Your task to perform on an android device: toggle show notifications on the lock screen Image 0: 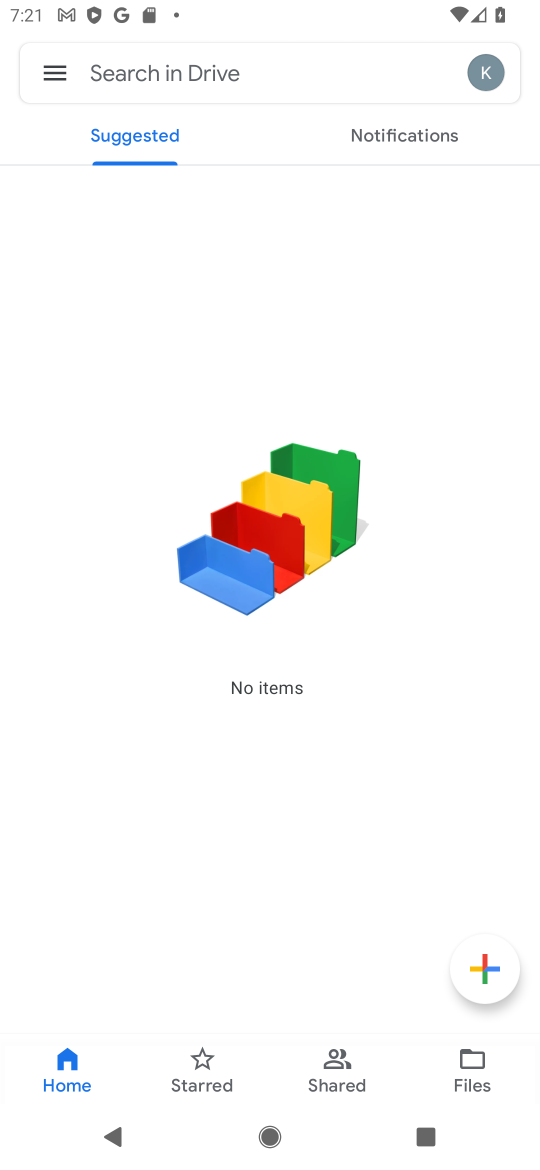
Step 0: press home button
Your task to perform on an android device: toggle show notifications on the lock screen Image 1: 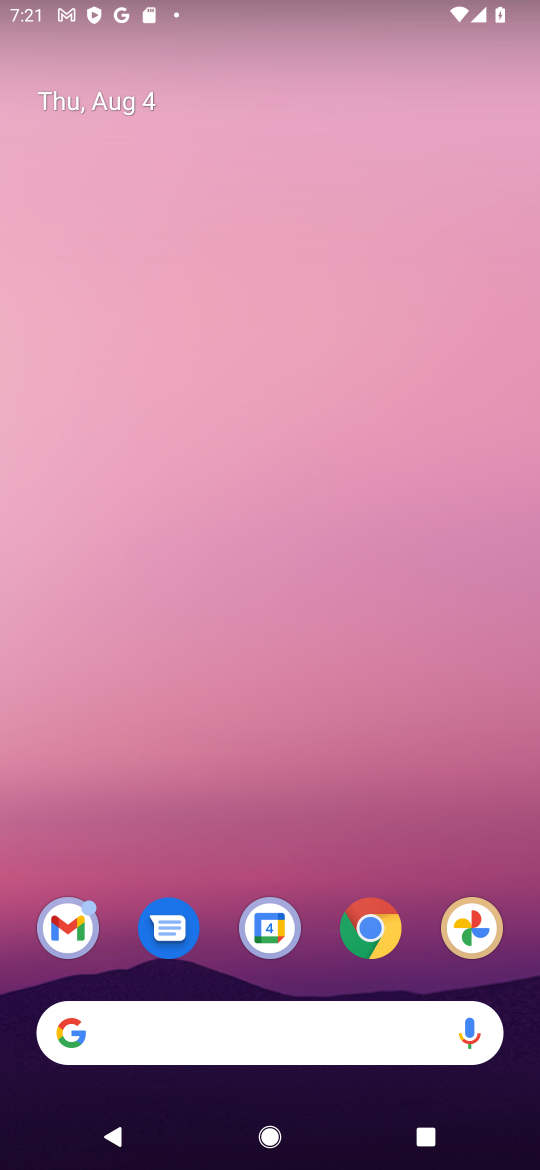
Step 1: drag from (239, 968) to (327, 3)
Your task to perform on an android device: toggle show notifications on the lock screen Image 2: 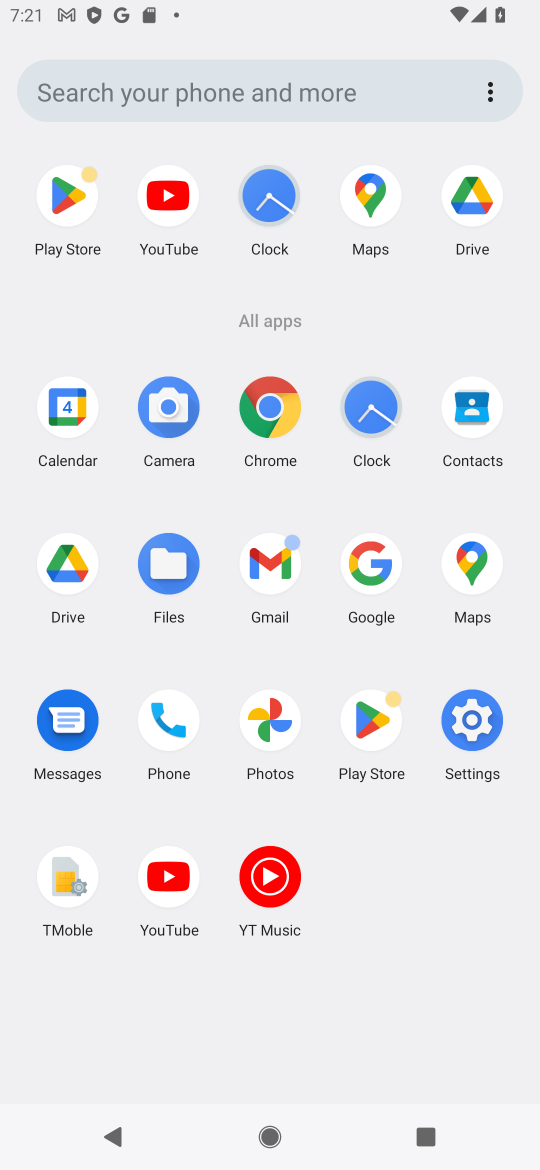
Step 2: click (465, 753)
Your task to perform on an android device: toggle show notifications on the lock screen Image 3: 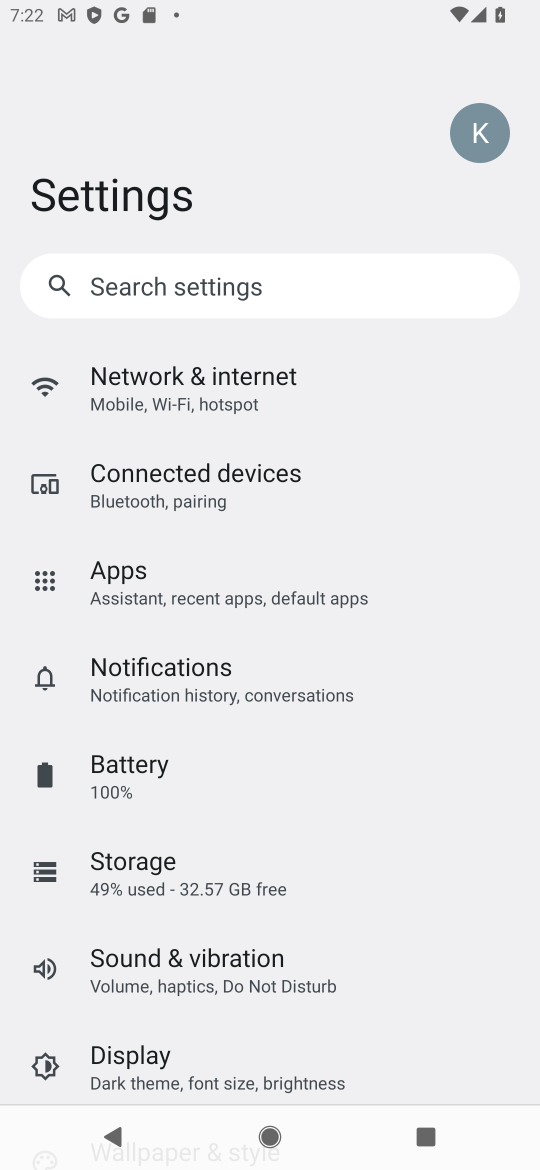
Step 3: click (152, 690)
Your task to perform on an android device: toggle show notifications on the lock screen Image 4: 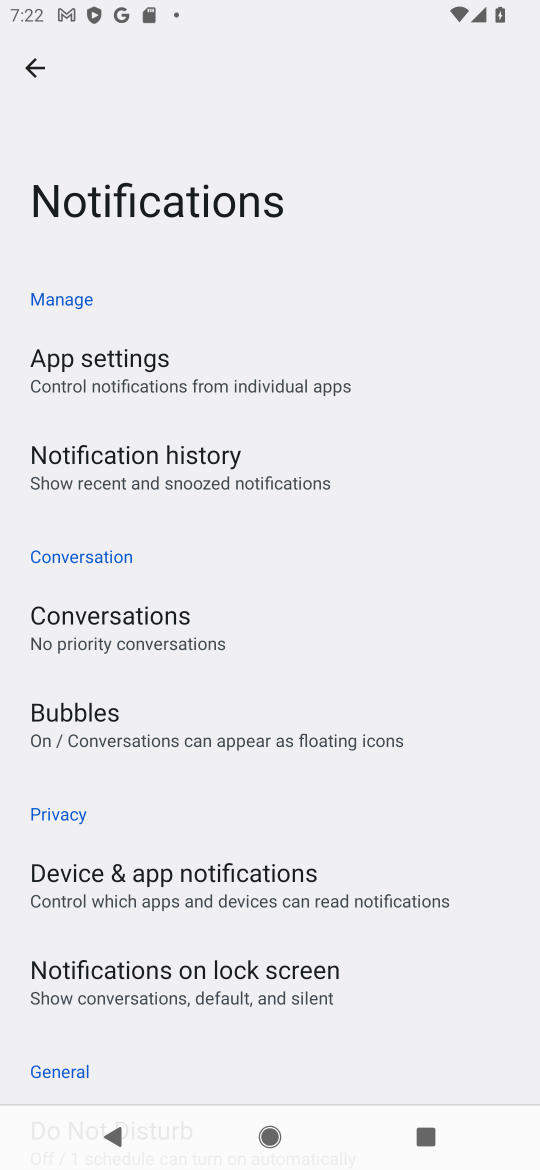
Step 4: drag from (224, 906) to (284, 568)
Your task to perform on an android device: toggle show notifications on the lock screen Image 5: 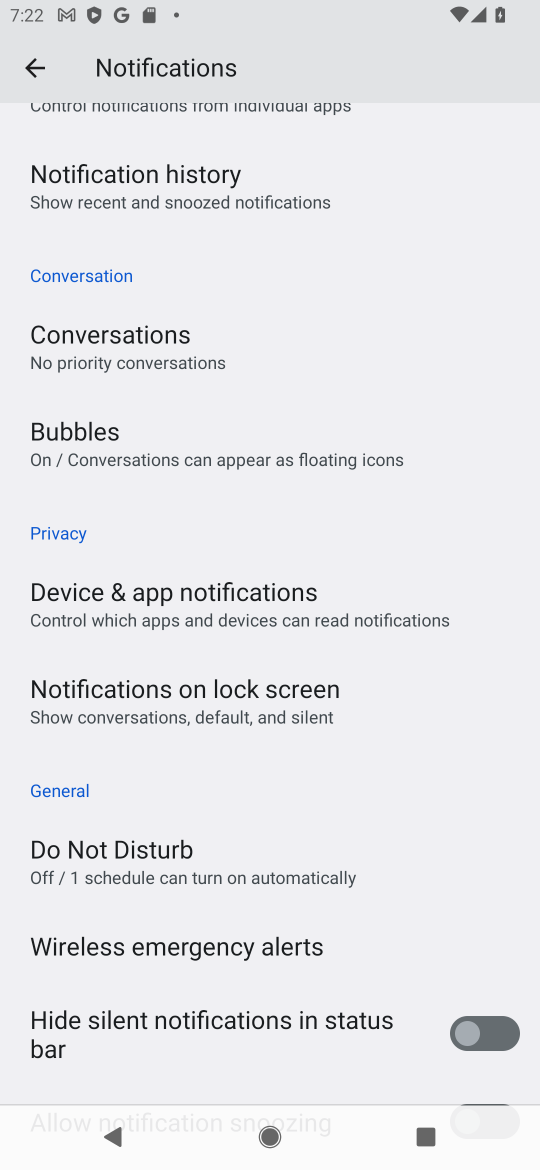
Step 5: drag from (237, 918) to (276, 603)
Your task to perform on an android device: toggle show notifications on the lock screen Image 6: 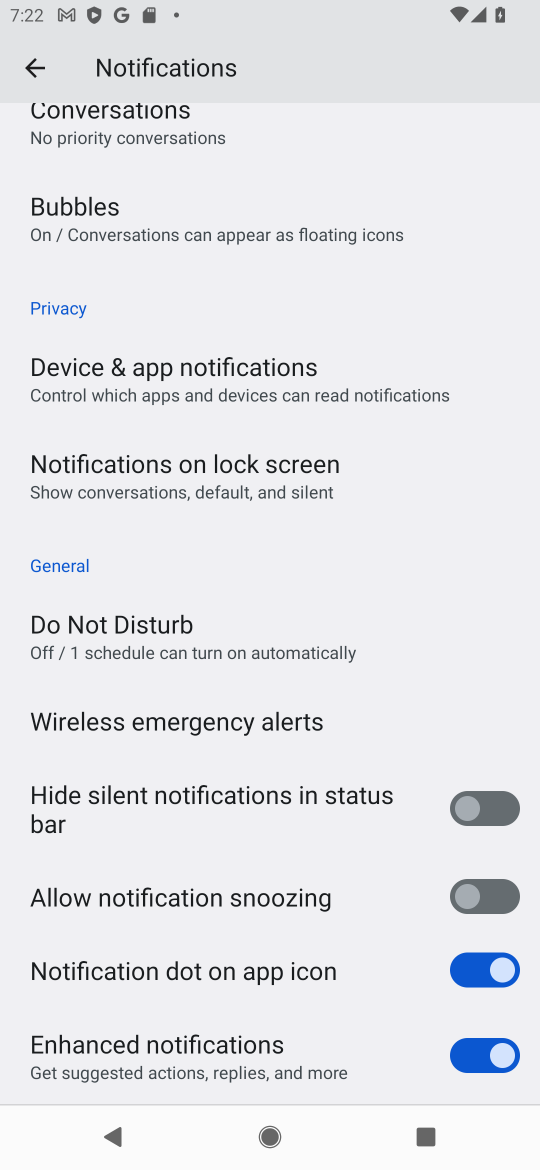
Step 6: click (207, 487)
Your task to perform on an android device: toggle show notifications on the lock screen Image 7: 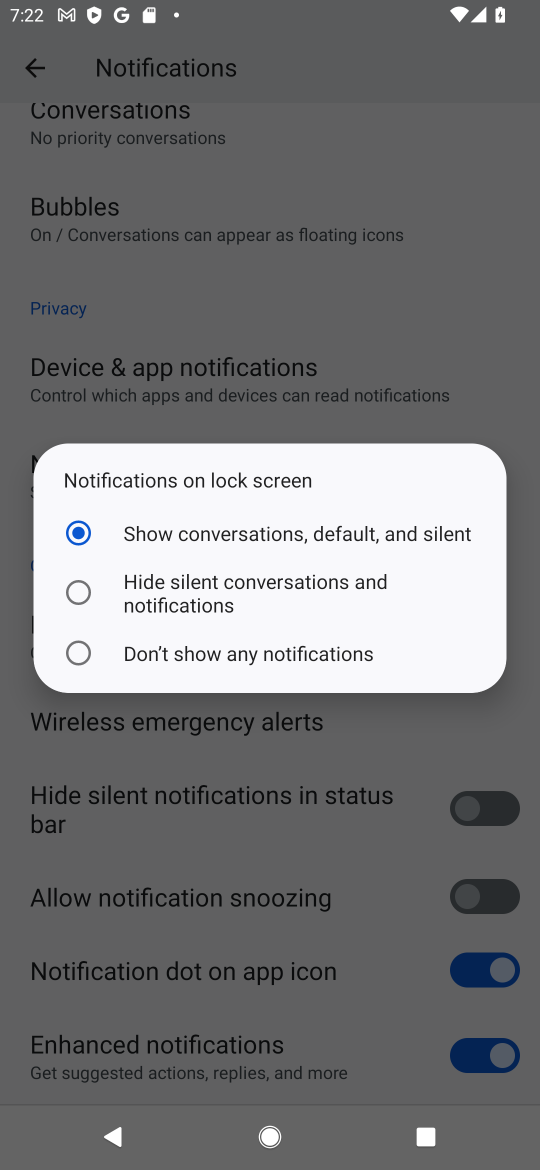
Step 7: click (157, 656)
Your task to perform on an android device: toggle show notifications on the lock screen Image 8: 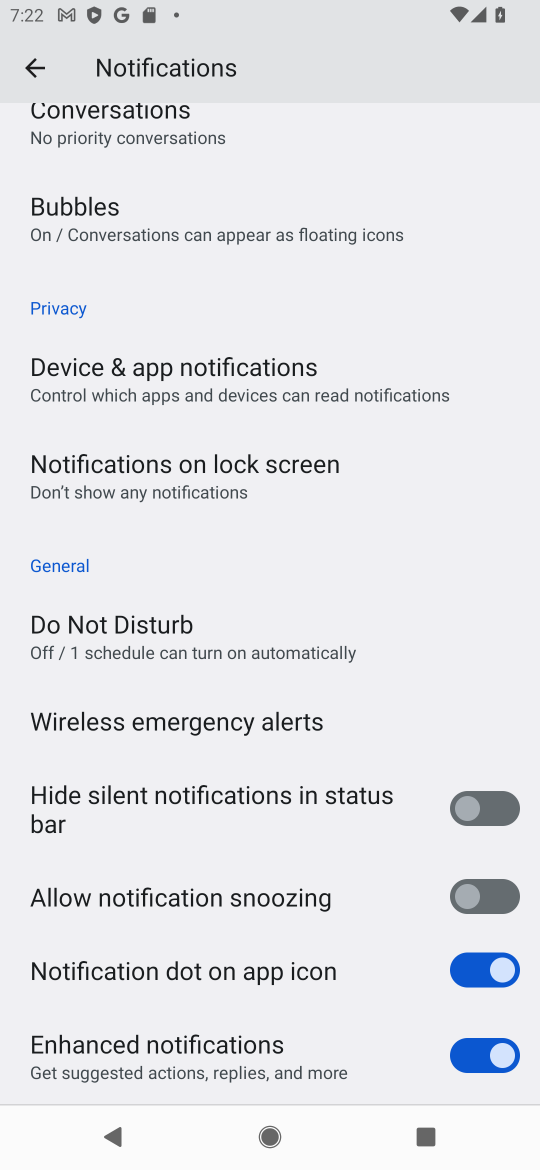
Step 8: task complete